Your task to perform on an android device: check storage Image 0: 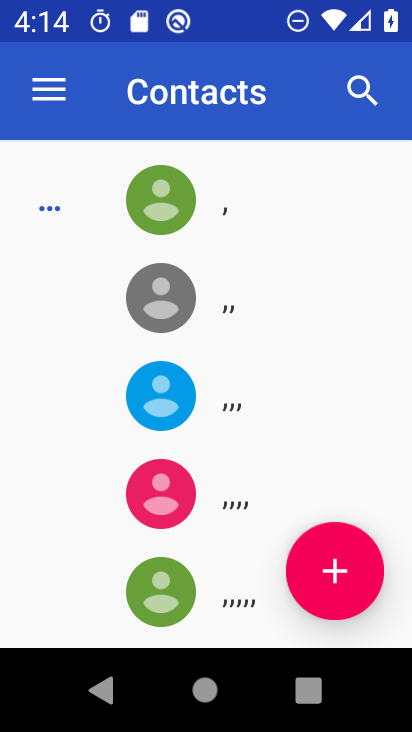
Step 0: press home button
Your task to perform on an android device: check storage Image 1: 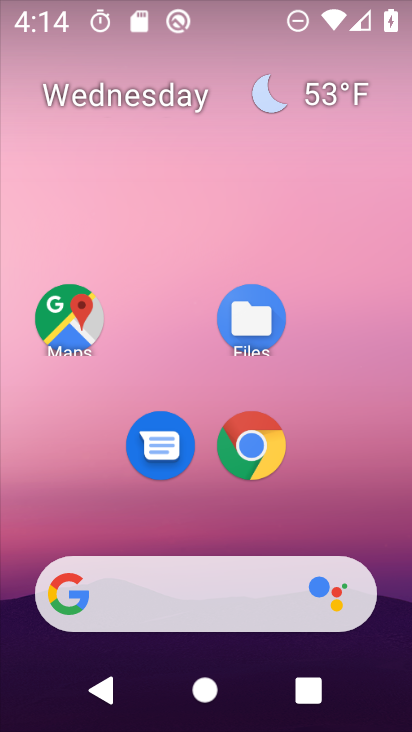
Step 1: drag from (356, 468) to (269, 70)
Your task to perform on an android device: check storage Image 2: 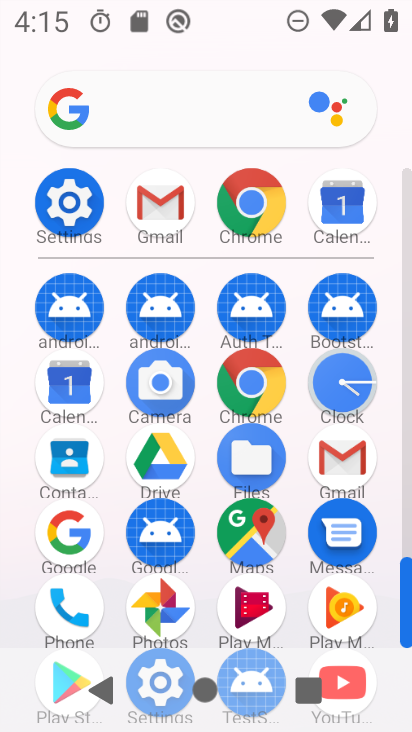
Step 2: click (72, 177)
Your task to perform on an android device: check storage Image 3: 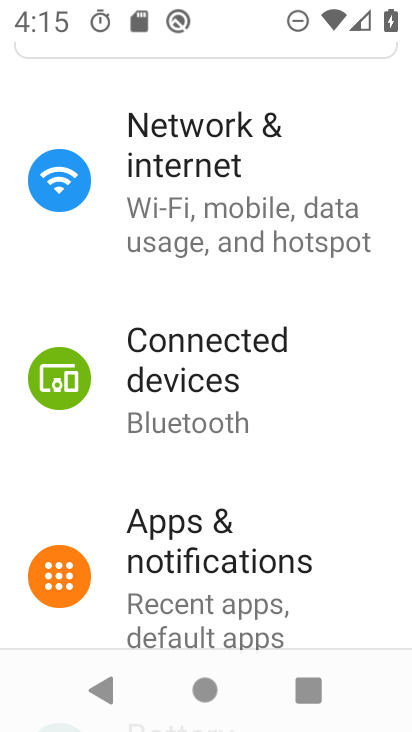
Step 3: drag from (359, 603) to (324, 353)
Your task to perform on an android device: check storage Image 4: 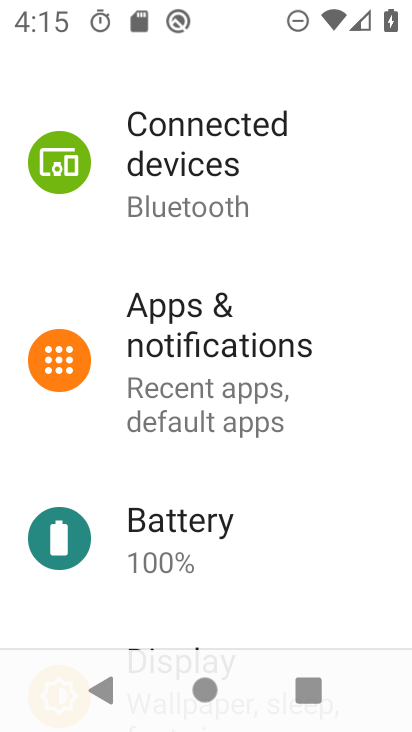
Step 4: drag from (331, 546) to (313, 308)
Your task to perform on an android device: check storage Image 5: 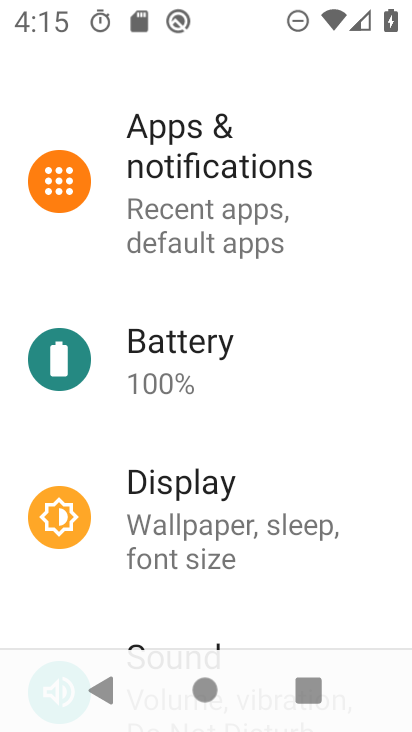
Step 5: drag from (303, 610) to (312, 327)
Your task to perform on an android device: check storage Image 6: 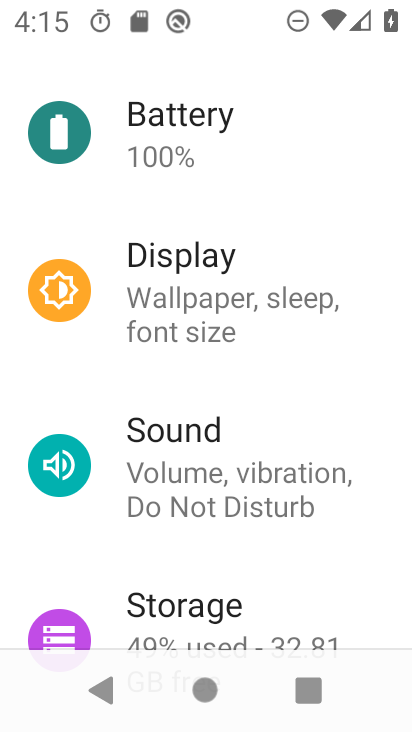
Step 6: click (240, 605)
Your task to perform on an android device: check storage Image 7: 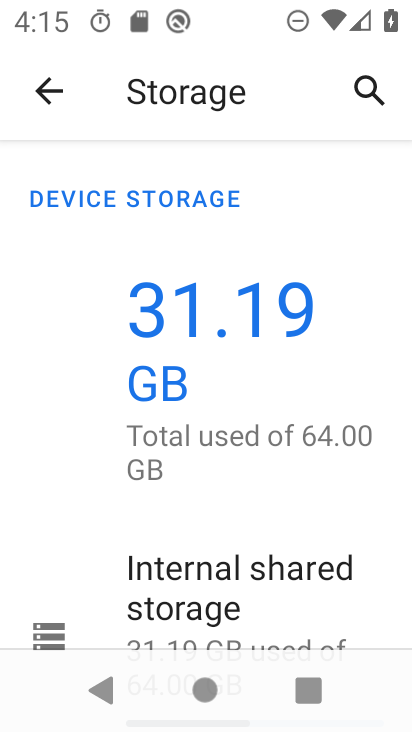
Step 7: task complete